Your task to perform on an android device: Go to network settings Image 0: 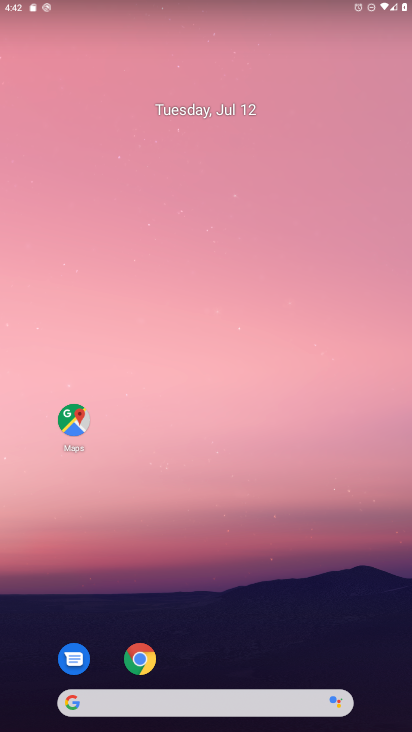
Step 0: drag from (191, 514) to (190, 224)
Your task to perform on an android device: Go to network settings Image 1: 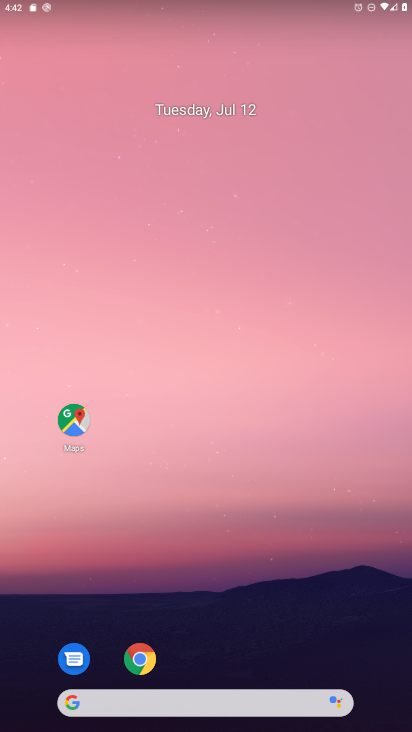
Step 1: drag from (201, 579) to (197, 270)
Your task to perform on an android device: Go to network settings Image 2: 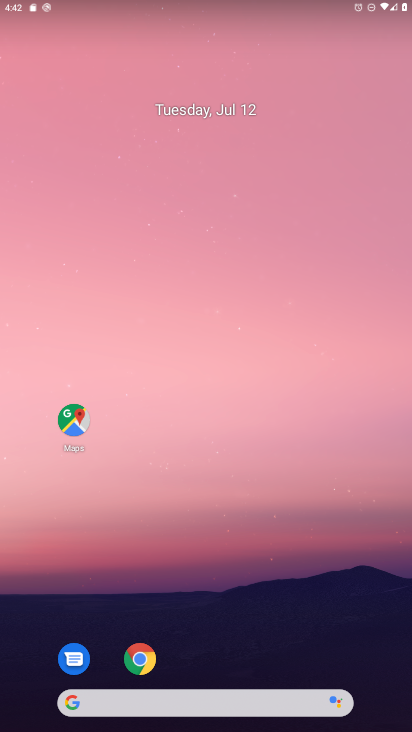
Step 2: drag from (175, 286) to (175, 230)
Your task to perform on an android device: Go to network settings Image 3: 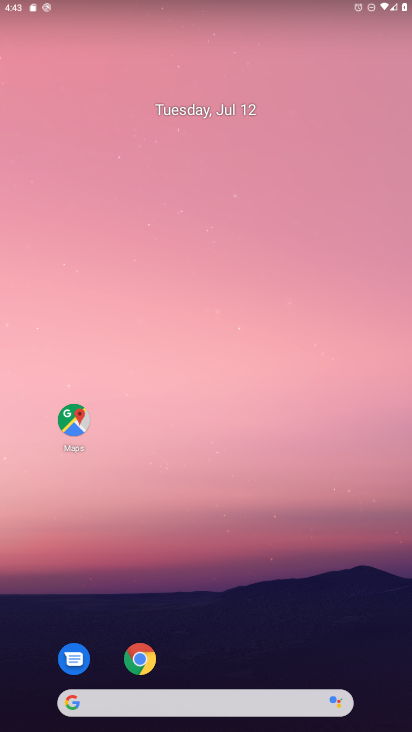
Step 3: click (199, 11)
Your task to perform on an android device: Go to network settings Image 4: 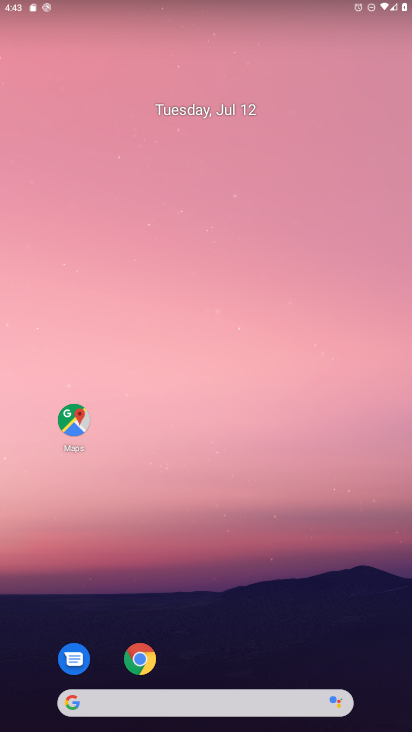
Step 4: click (202, 35)
Your task to perform on an android device: Go to network settings Image 5: 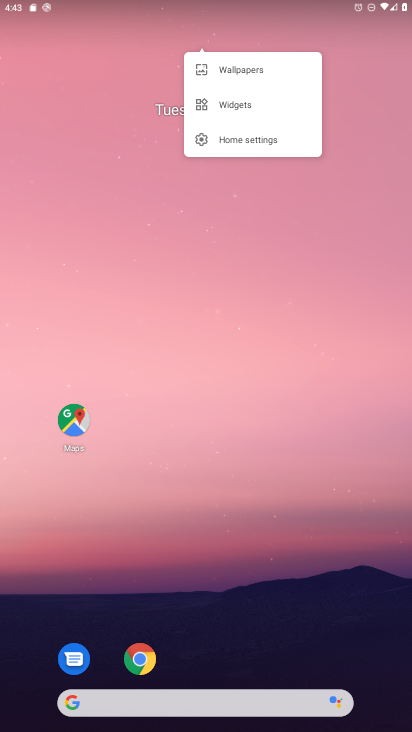
Step 5: drag from (185, 254) to (173, 50)
Your task to perform on an android device: Go to network settings Image 6: 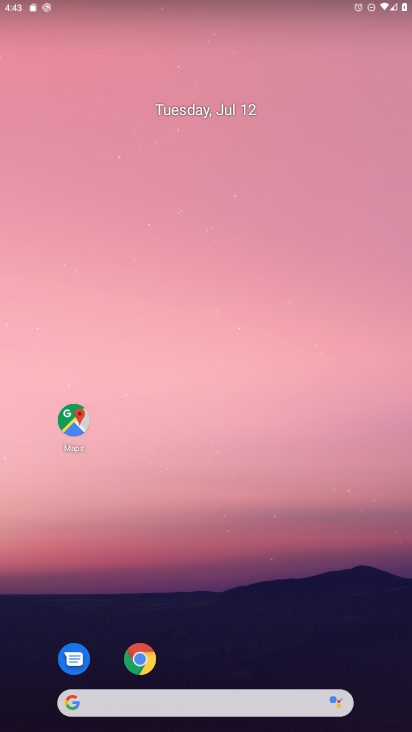
Step 6: drag from (212, 506) to (212, 44)
Your task to perform on an android device: Go to network settings Image 7: 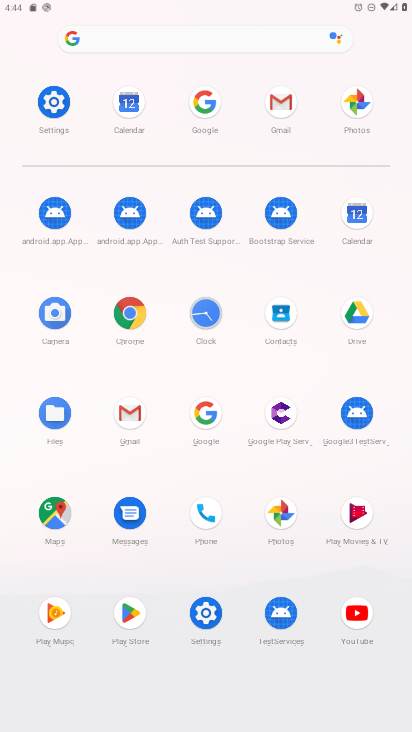
Step 7: click (44, 114)
Your task to perform on an android device: Go to network settings Image 8: 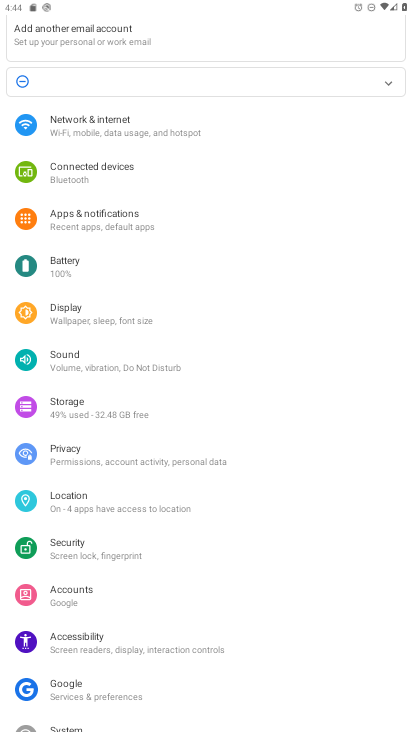
Step 8: click (83, 122)
Your task to perform on an android device: Go to network settings Image 9: 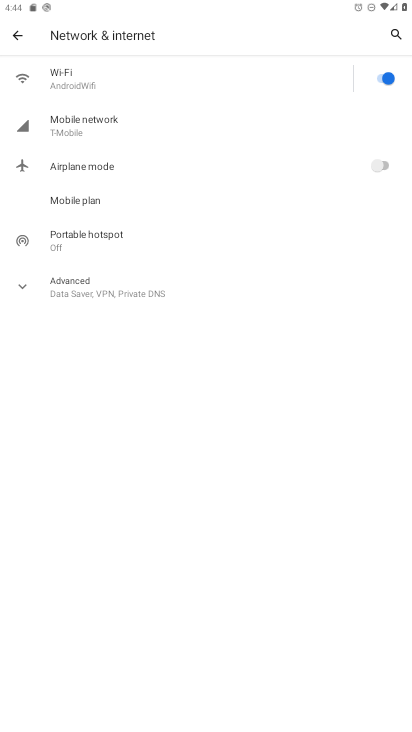
Step 9: task complete